Your task to perform on an android device: Is it going to rain tomorrow? Image 0: 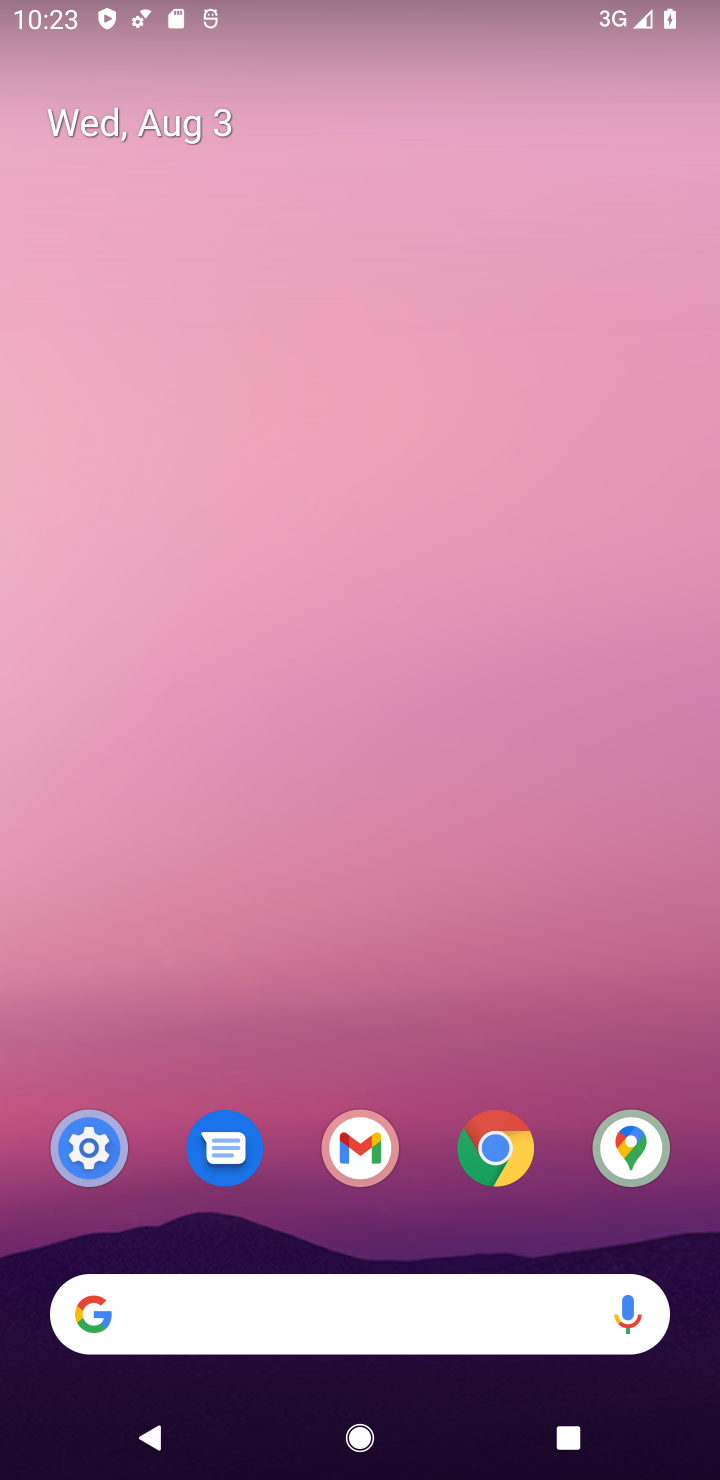
Step 0: drag from (427, 1006) to (361, 184)
Your task to perform on an android device: Is it going to rain tomorrow? Image 1: 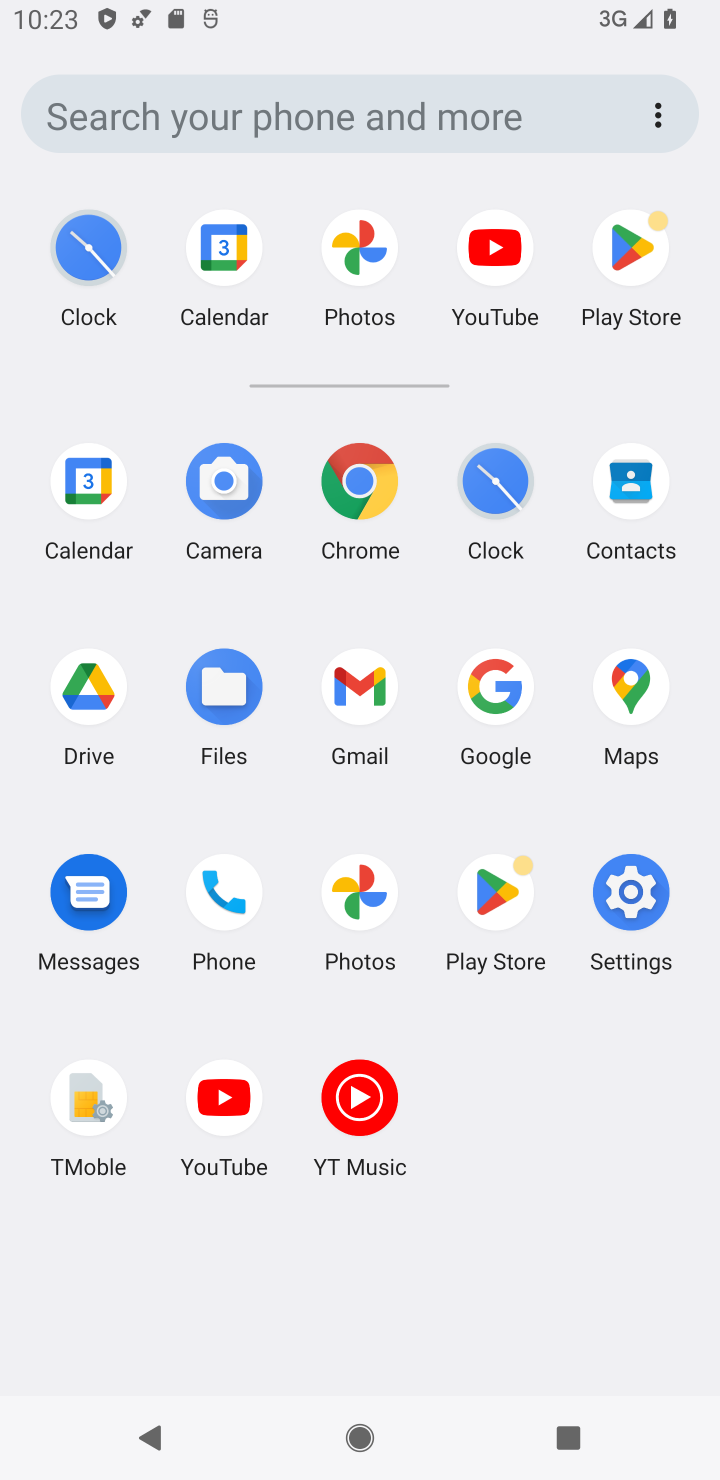
Step 1: press home button
Your task to perform on an android device: Is it going to rain tomorrow? Image 2: 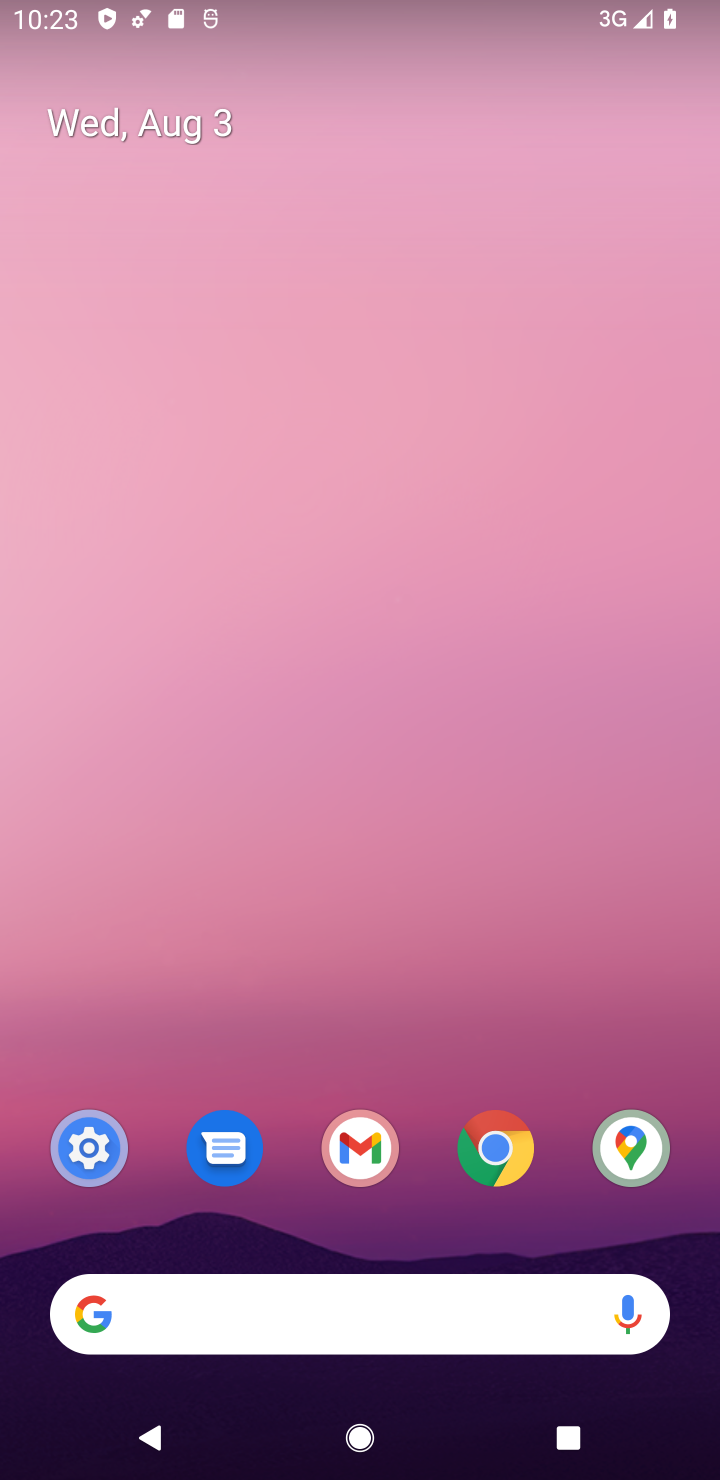
Step 2: click (365, 1303)
Your task to perform on an android device: Is it going to rain tomorrow? Image 3: 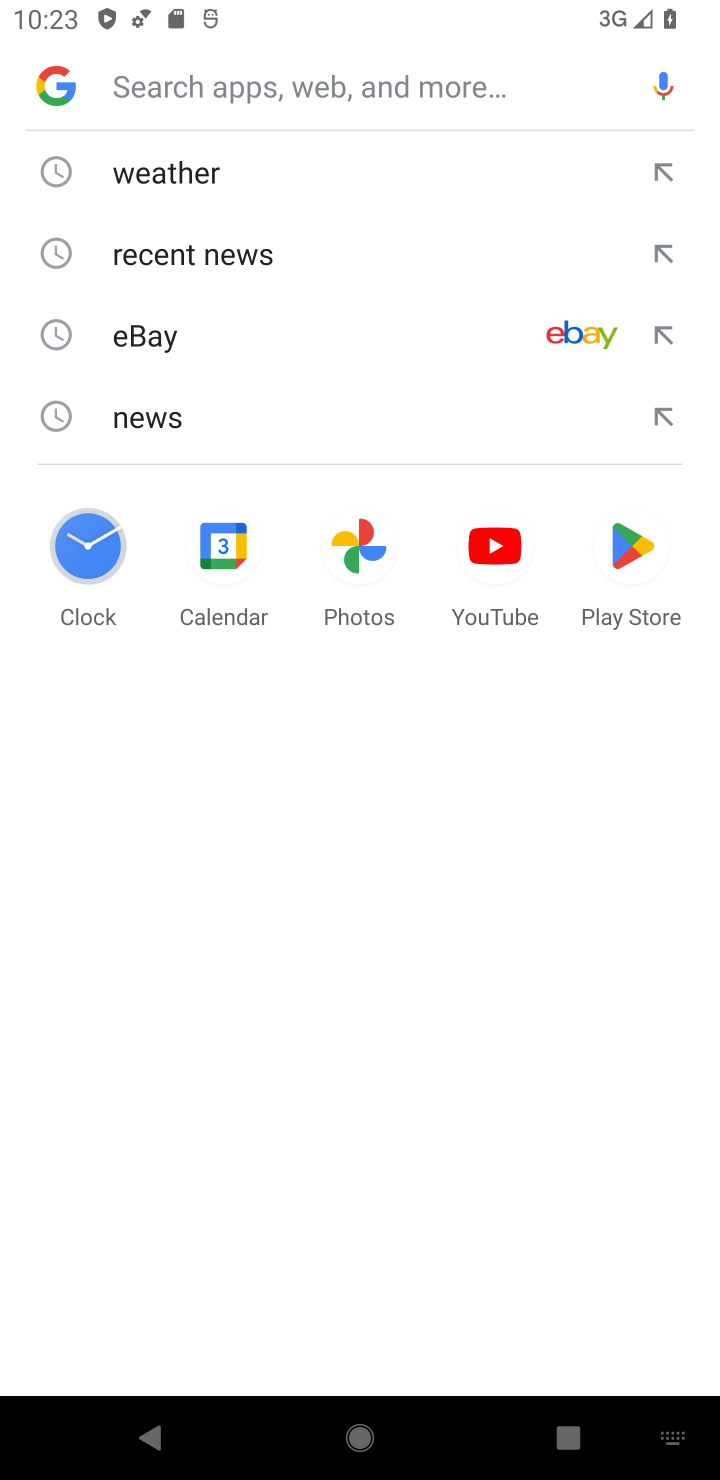
Step 3: press enter
Your task to perform on an android device: Is it going to rain tomorrow? Image 4: 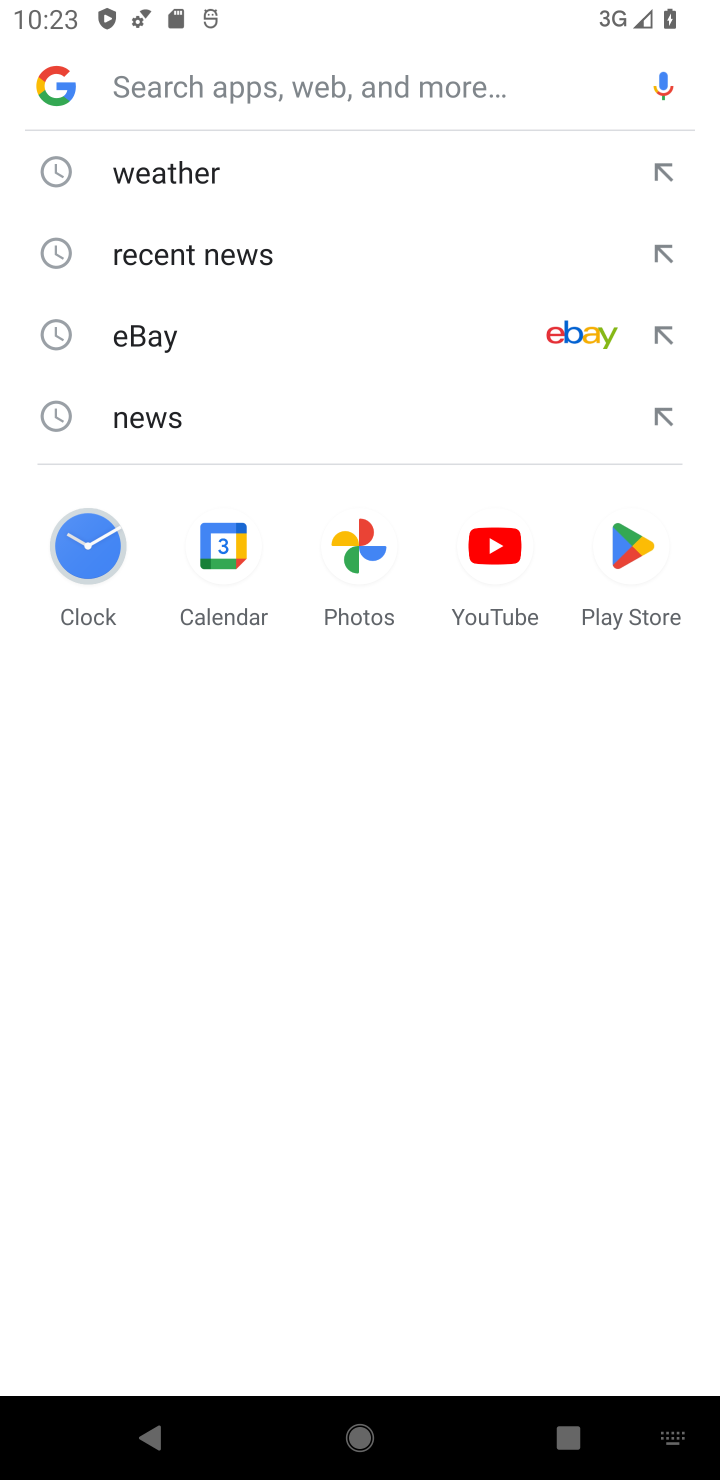
Step 4: type "Is it going to rain tomorrow?"
Your task to perform on an android device: Is it going to rain tomorrow? Image 5: 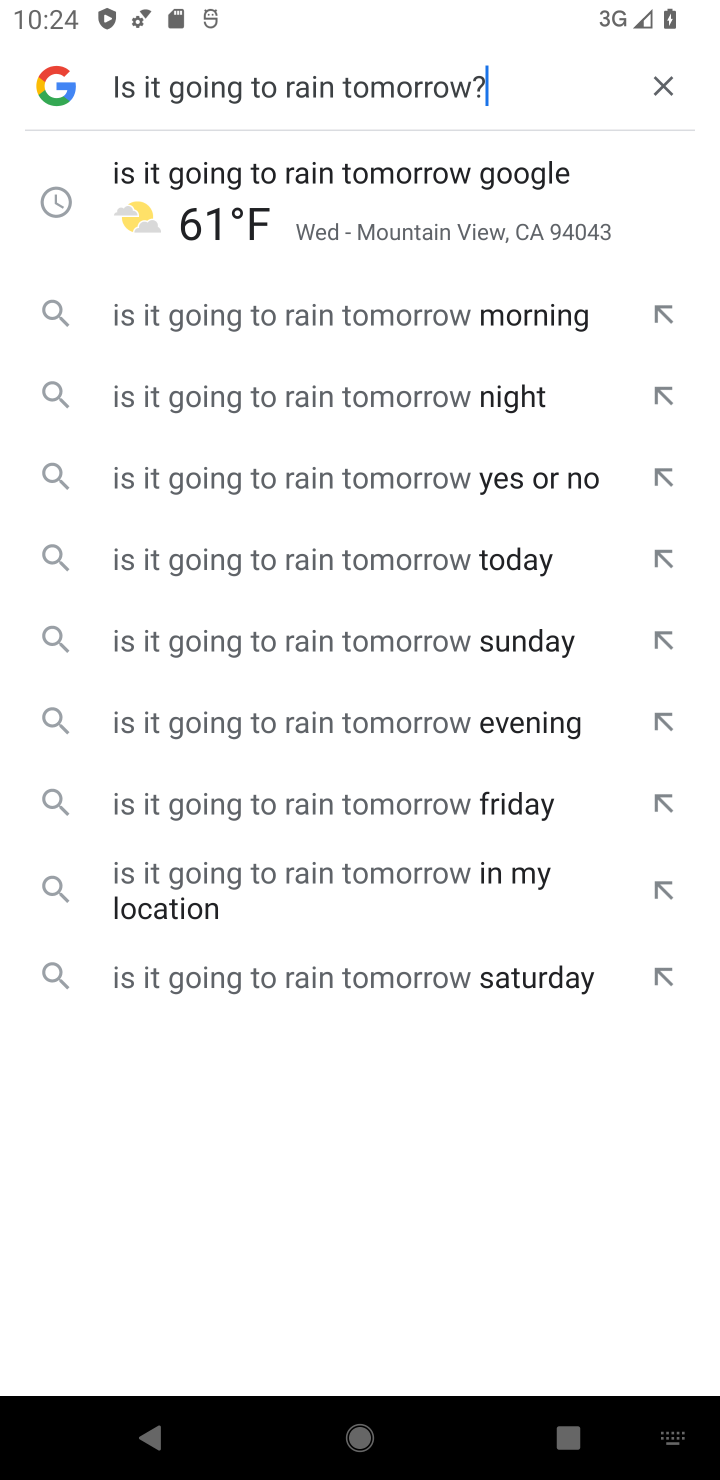
Step 5: task complete